Your task to perform on an android device: Open the Play Movies app and select the watchlist tab. Image 0: 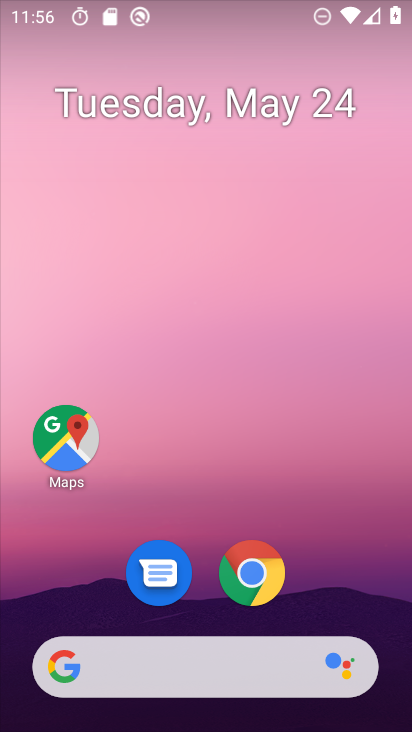
Step 0: drag from (371, 554) to (249, 45)
Your task to perform on an android device: Open the Play Movies app and select the watchlist tab. Image 1: 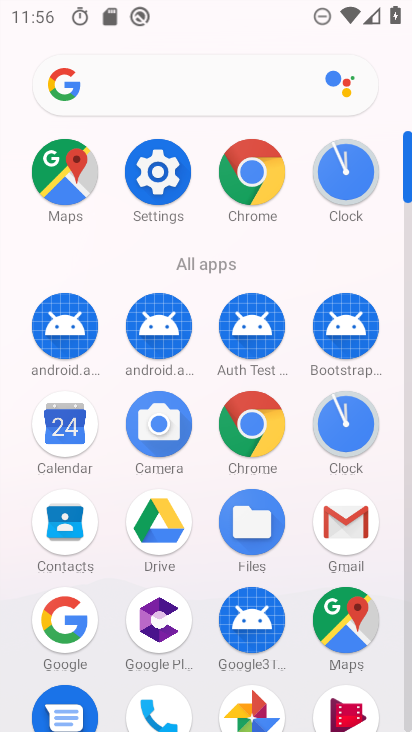
Step 1: drag from (0, 582) to (1, 548)
Your task to perform on an android device: Open the Play Movies app and select the watchlist tab. Image 2: 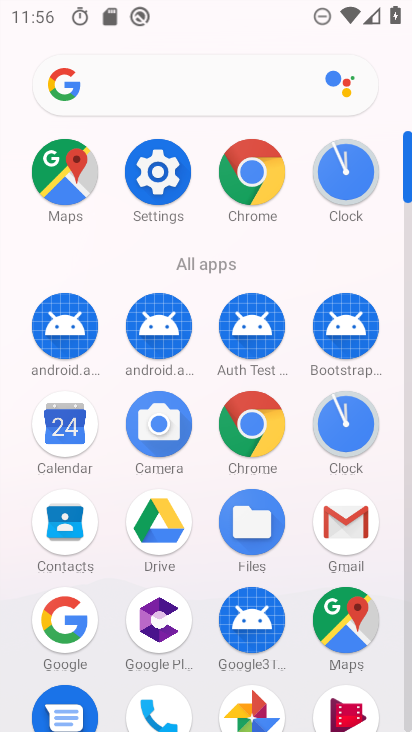
Step 2: drag from (11, 564) to (12, 254)
Your task to perform on an android device: Open the Play Movies app and select the watchlist tab. Image 3: 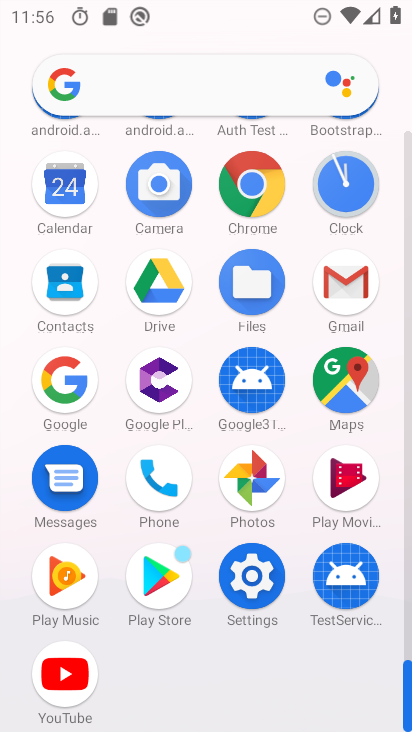
Step 3: click (345, 475)
Your task to perform on an android device: Open the Play Movies app and select the watchlist tab. Image 4: 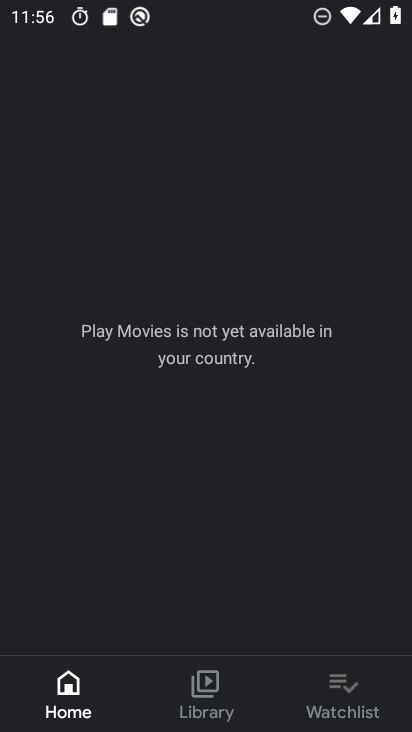
Step 4: click (347, 674)
Your task to perform on an android device: Open the Play Movies app and select the watchlist tab. Image 5: 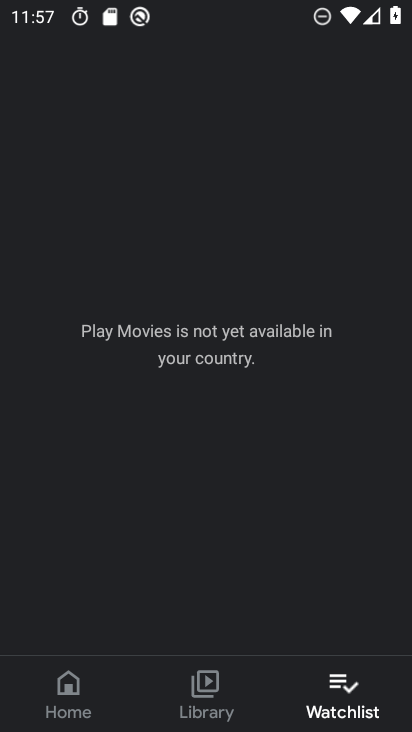
Step 5: task complete